Your task to perform on an android device: turn off location history Image 0: 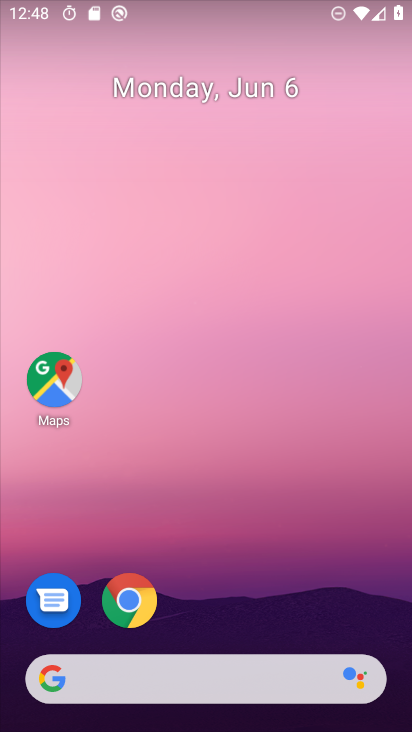
Step 0: drag from (199, 609) to (200, 118)
Your task to perform on an android device: turn off location history Image 1: 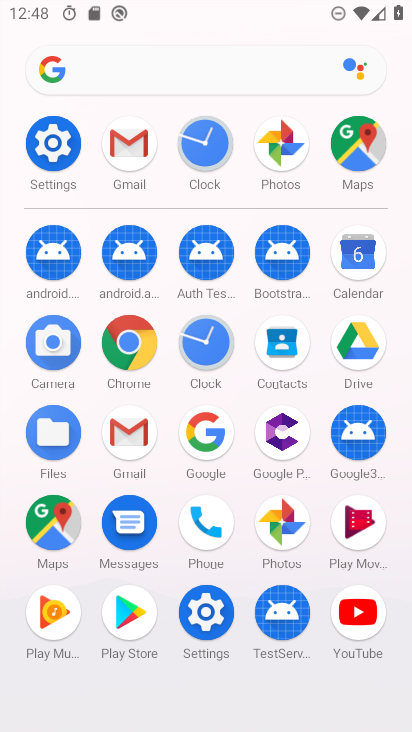
Step 1: click (57, 143)
Your task to perform on an android device: turn off location history Image 2: 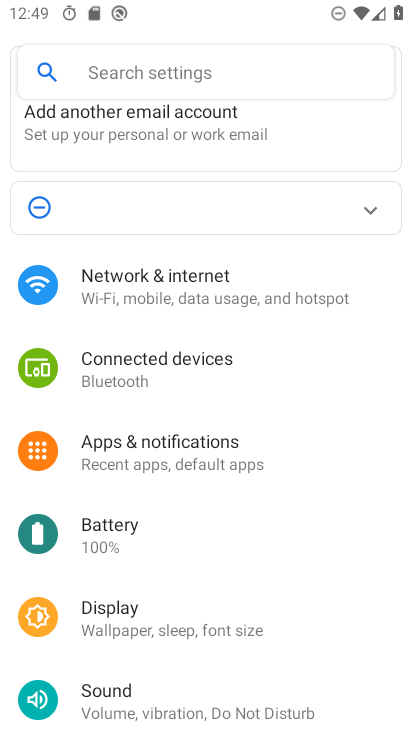
Step 2: drag from (215, 615) to (240, 302)
Your task to perform on an android device: turn off location history Image 3: 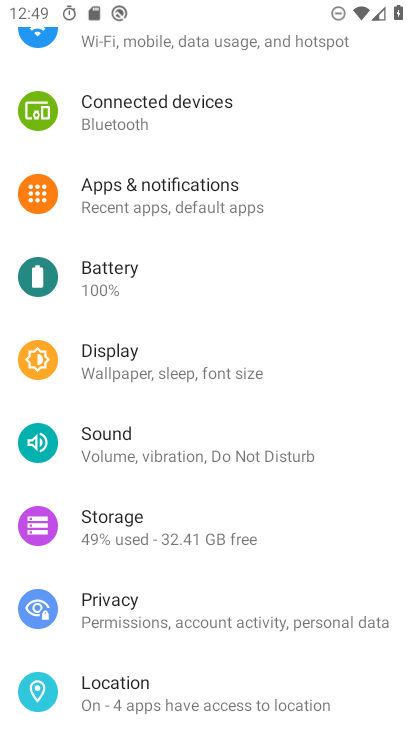
Step 3: click (157, 652)
Your task to perform on an android device: turn off location history Image 4: 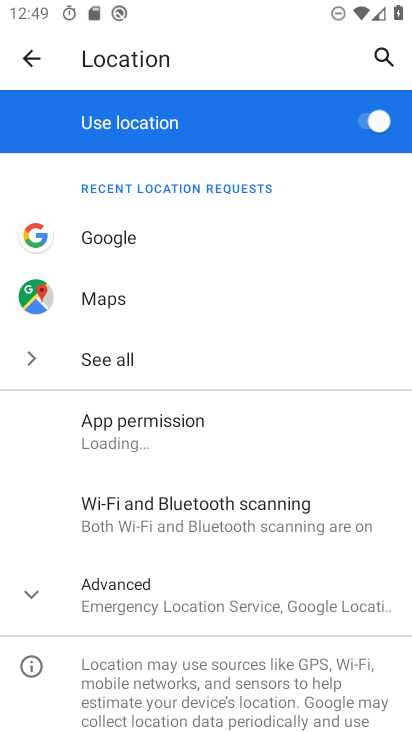
Step 4: click (227, 583)
Your task to perform on an android device: turn off location history Image 5: 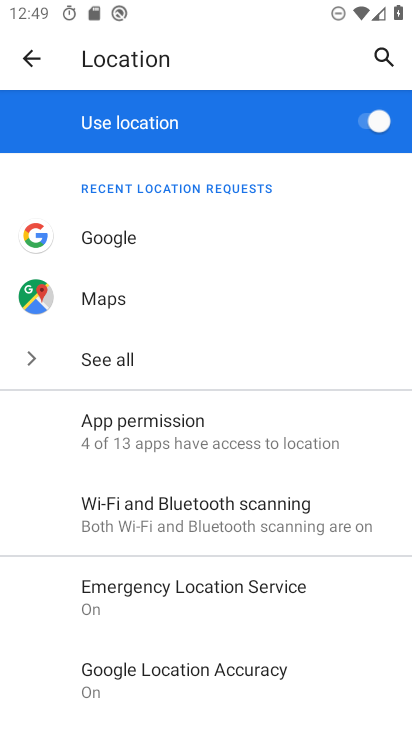
Step 5: drag from (213, 681) to (239, 469)
Your task to perform on an android device: turn off location history Image 6: 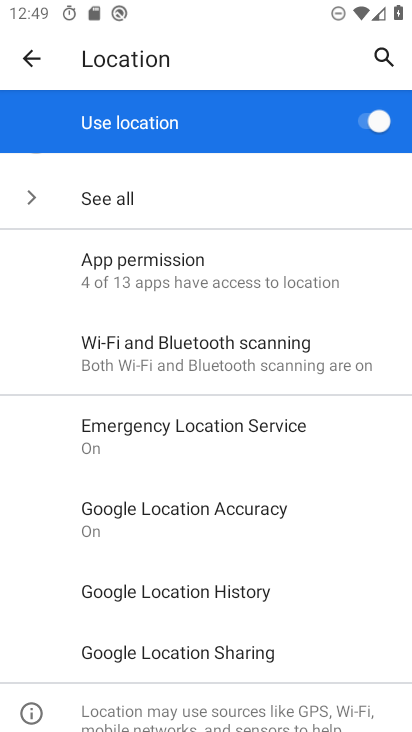
Step 6: click (204, 616)
Your task to perform on an android device: turn off location history Image 7: 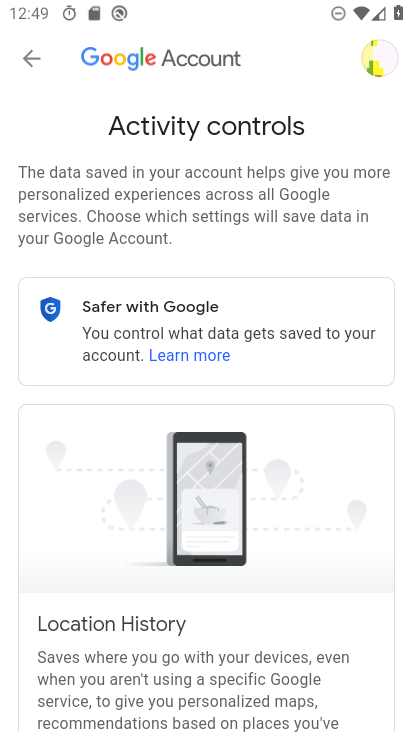
Step 7: task complete